Your task to perform on an android device: delete the emails in spam in the gmail app Image 0: 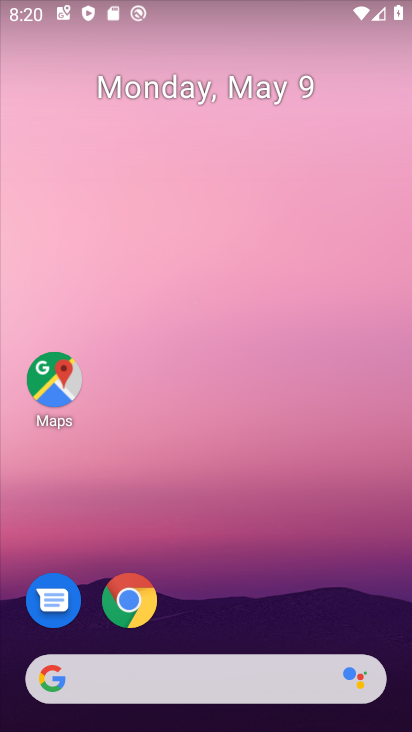
Step 0: drag from (252, 593) to (238, 35)
Your task to perform on an android device: delete the emails in spam in the gmail app Image 1: 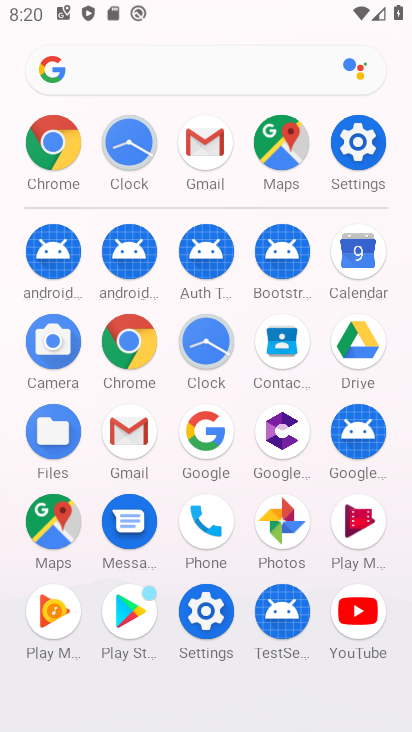
Step 1: drag from (1, 577) to (13, 352)
Your task to perform on an android device: delete the emails in spam in the gmail app Image 2: 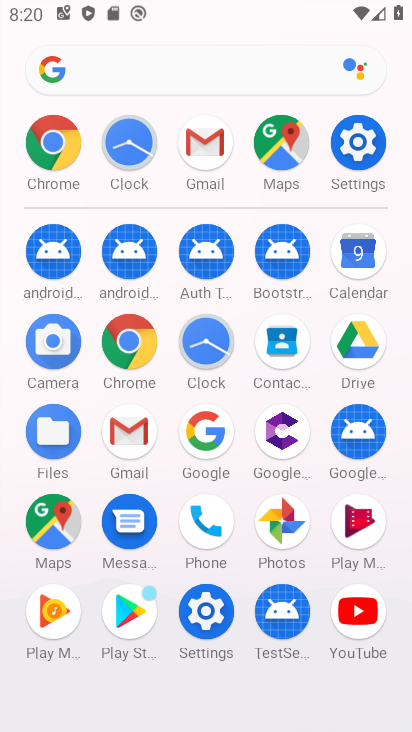
Step 2: click (130, 429)
Your task to perform on an android device: delete the emails in spam in the gmail app Image 3: 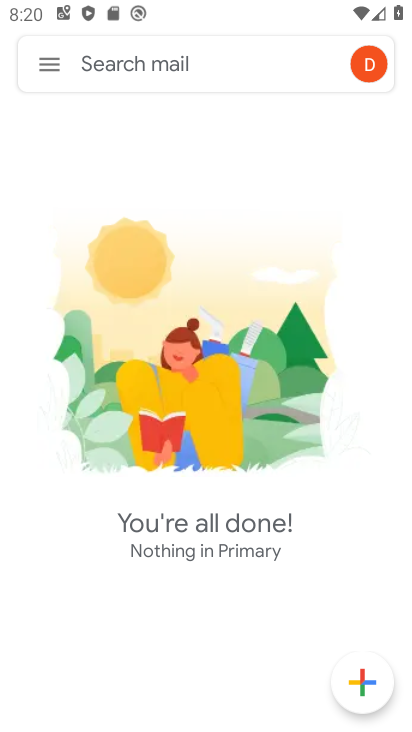
Step 3: click (50, 61)
Your task to perform on an android device: delete the emails in spam in the gmail app Image 4: 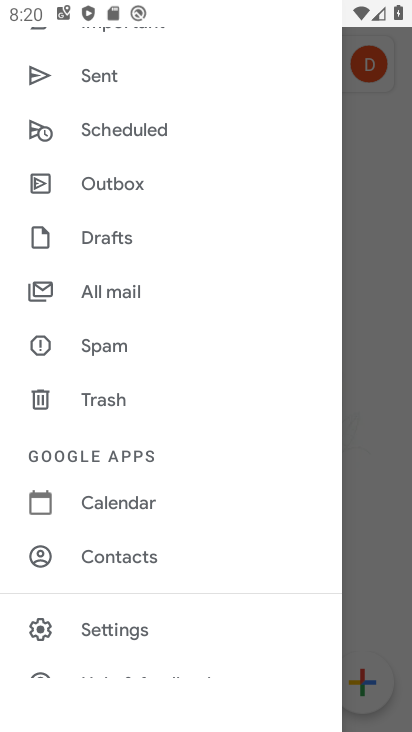
Step 4: click (124, 344)
Your task to perform on an android device: delete the emails in spam in the gmail app Image 5: 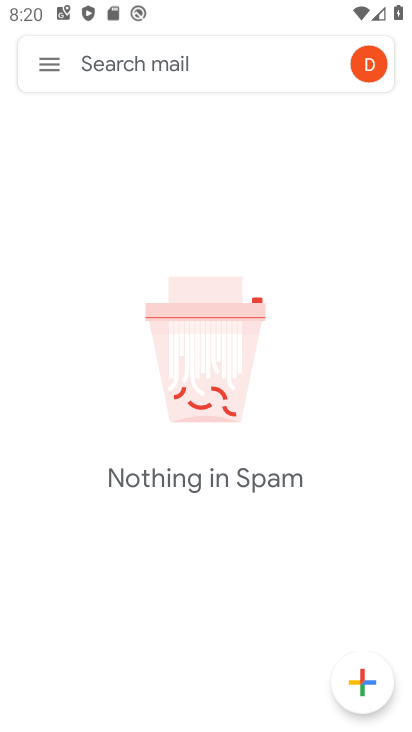
Step 5: task complete